Your task to perform on an android device: manage bookmarks in the chrome app Image 0: 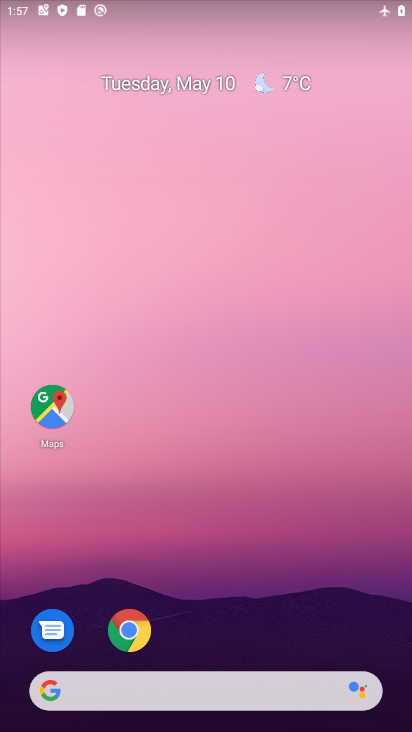
Step 0: drag from (236, 505) to (102, 1)
Your task to perform on an android device: manage bookmarks in the chrome app Image 1: 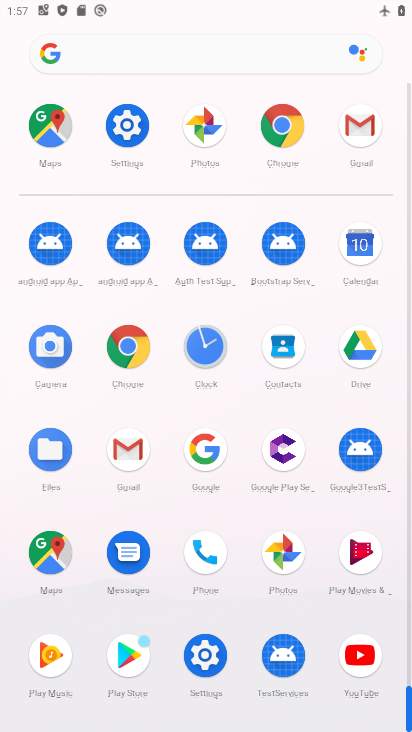
Step 1: drag from (17, 561) to (20, 230)
Your task to perform on an android device: manage bookmarks in the chrome app Image 2: 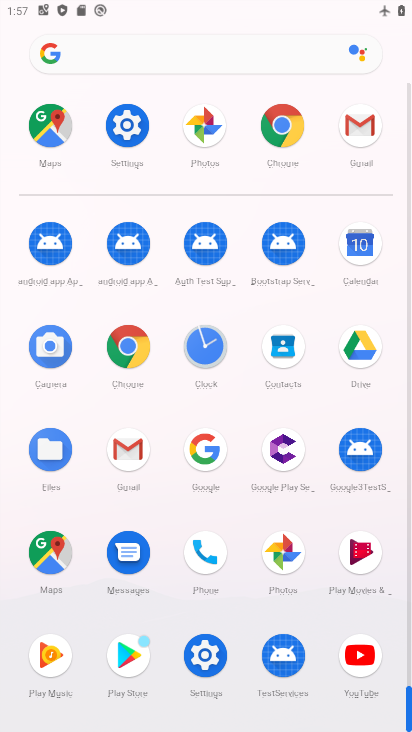
Step 2: click (128, 344)
Your task to perform on an android device: manage bookmarks in the chrome app Image 3: 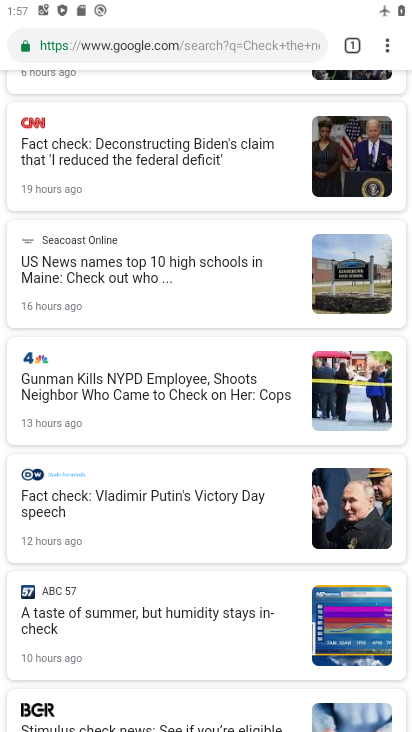
Step 3: task complete